Your task to perform on an android device: Open Google Chrome and click the shortcut for Amazon.com Image 0: 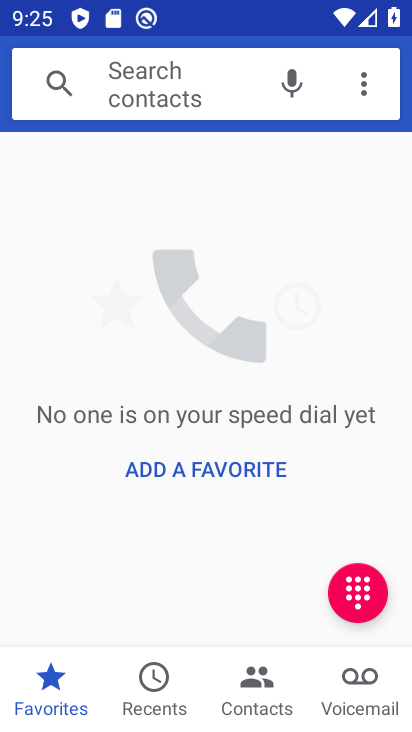
Step 0: press home button
Your task to perform on an android device: Open Google Chrome and click the shortcut for Amazon.com Image 1: 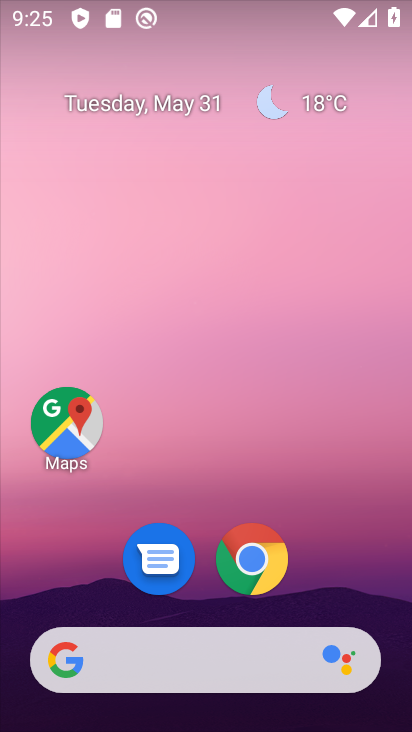
Step 1: click (268, 550)
Your task to perform on an android device: Open Google Chrome and click the shortcut for Amazon.com Image 2: 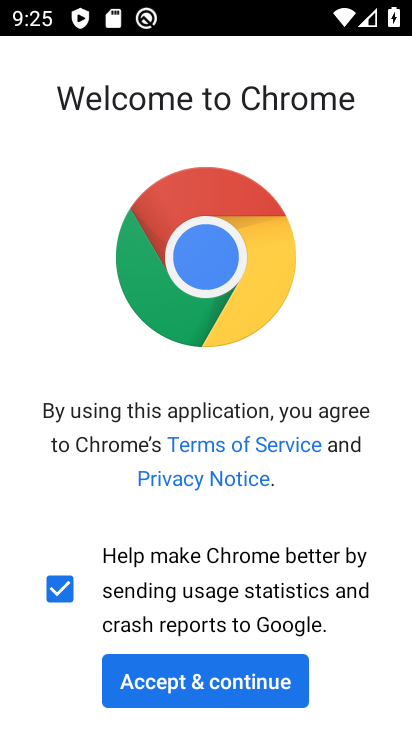
Step 2: click (229, 666)
Your task to perform on an android device: Open Google Chrome and click the shortcut for Amazon.com Image 3: 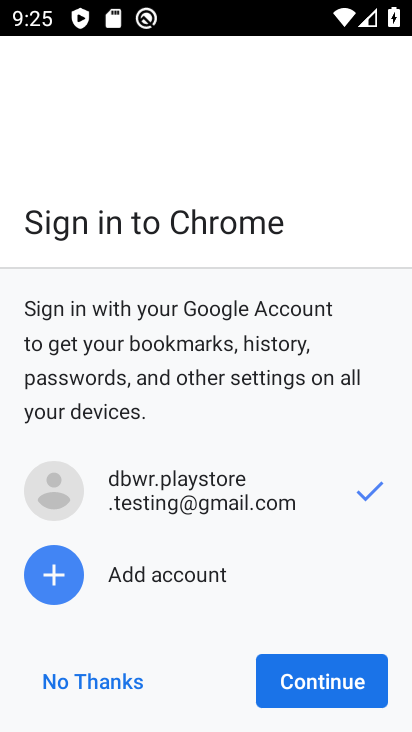
Step 3: click (278, 677)
Your task to perform on an android device: Open Google Chrome and click the shortcut for Amazon.com Image 4: 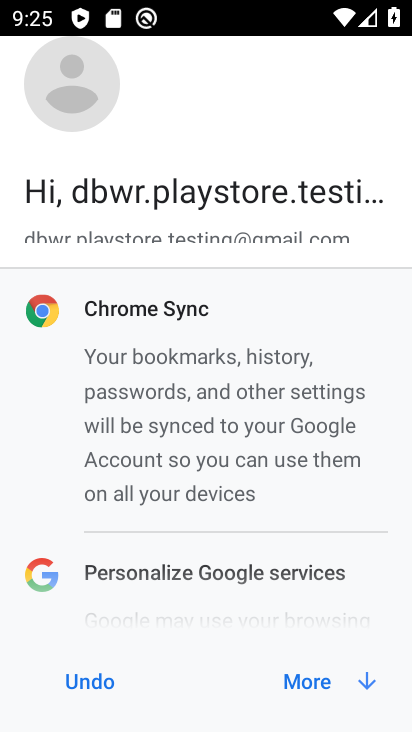
Step 4: click (278, 677)
Your task to perform on an android device: Open Google Chrome and click the shortcut for Amazon.com Image 5: 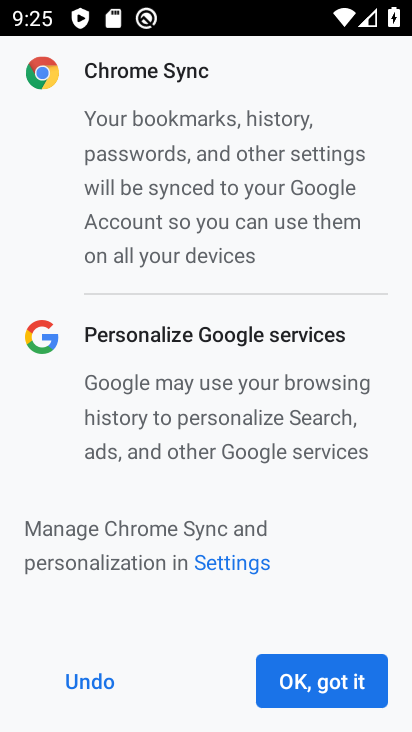
Step 5: click (278, 677)
Your task to perform on an android device: Open Google Chrome and click the shortcut for Amazon.com Image 6: 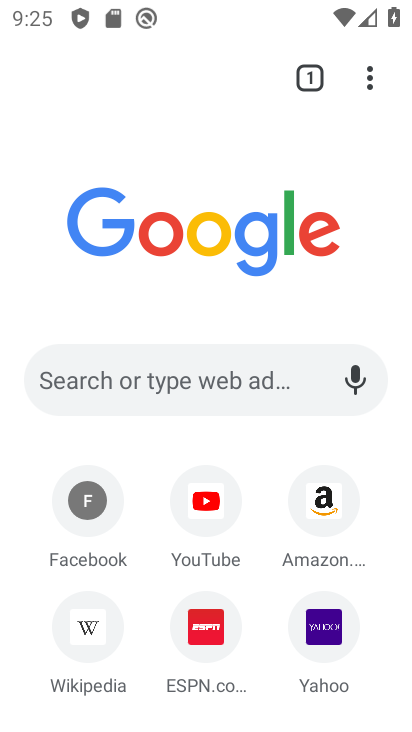
Step 6: click (295, 515)
Your task to perform on an android device: Open Google Chrome and click the shortcut for Amazon.com Image 7: 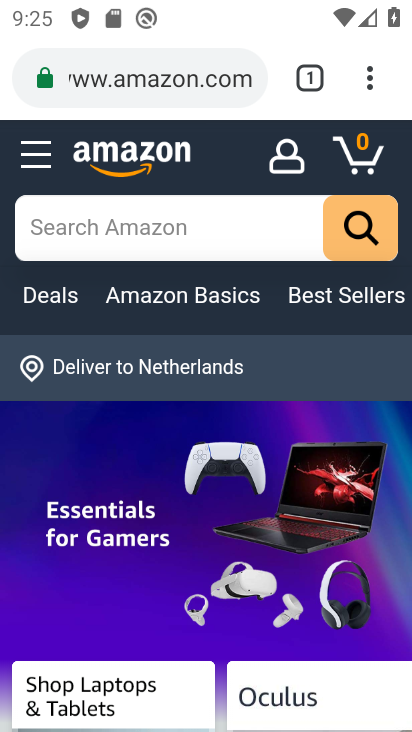
Step 7: task complete